Your task to perform on an android device: Show me popular videos on Youtube Image 0: 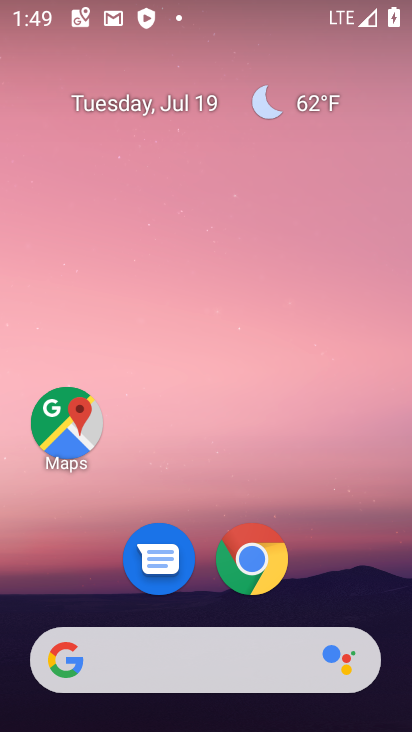
Step 0: drag from (181, 574) to (302, 60)
Your task to perform on an android device: Show me popular videos on Youtube Image 1: 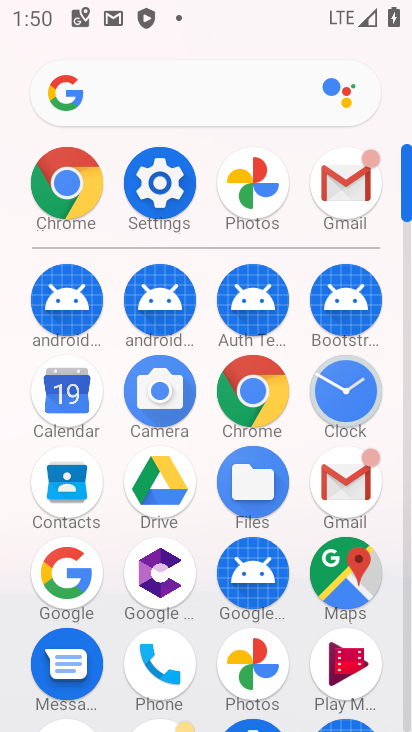
Step 1: drag from (291, 514) to (289, 225)
Your task to perform on an android device: Show me popular videos on Youtube Image 2: 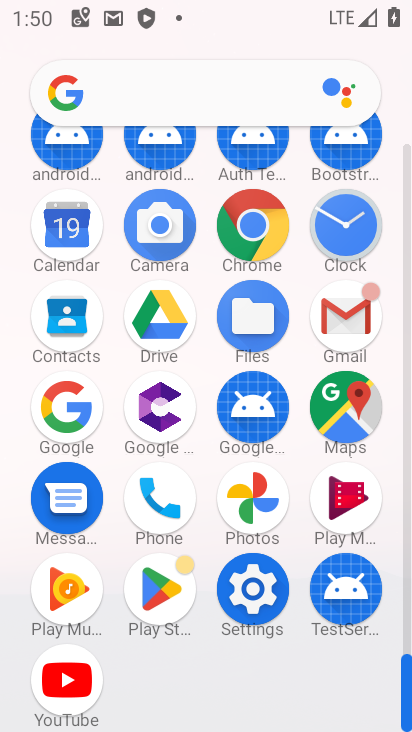
Step 2: click (67, 700)
Your task to perform on an android device: Show me popular videos on Youtube Image 3: 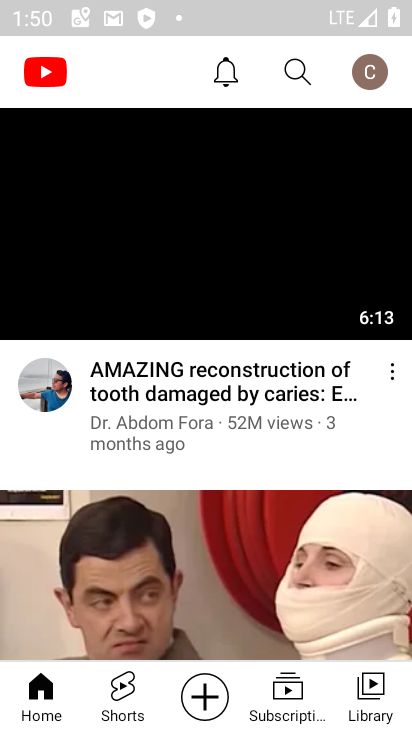
Step 3: task complete